Your task to perform on an android device: check data usage Image 0: 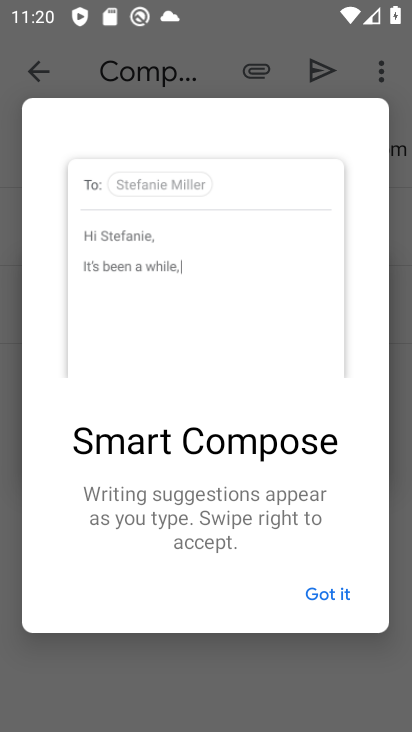
Step 0: press home button
Your task to perform on an android device: check data usage Image 1: 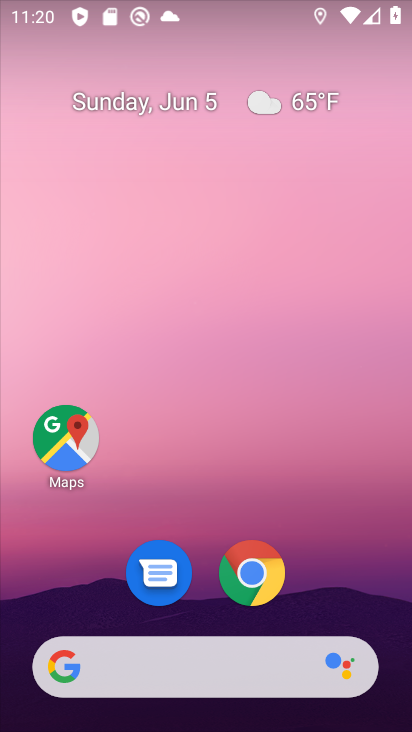
Step 1: drag from (203, 614) to (166, 46)
Your task to perform on an android device: check data usage Image 2: 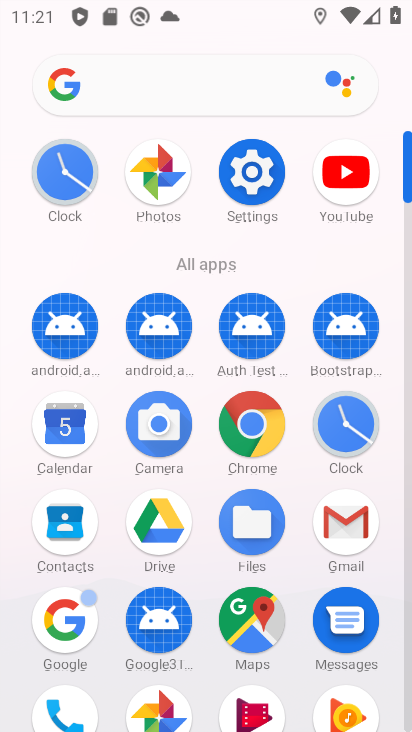
Step 2: click (245, 168)
Your task to perform on an android device: check data usage Image 3: 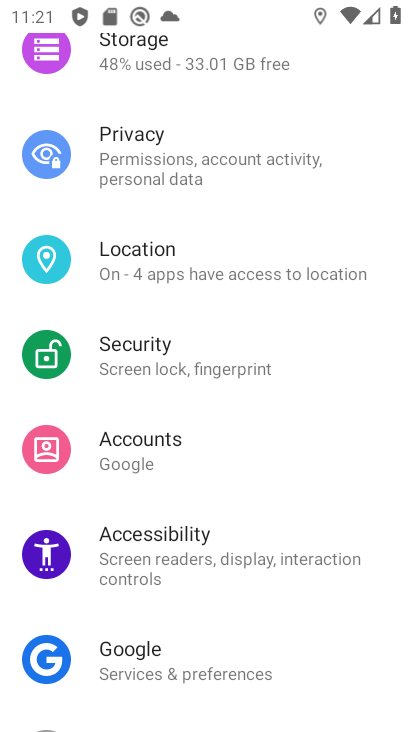
Step 3: drag from (202, 107) to (218, 657)
Your task to perform on an android device: check data usage Image 4: 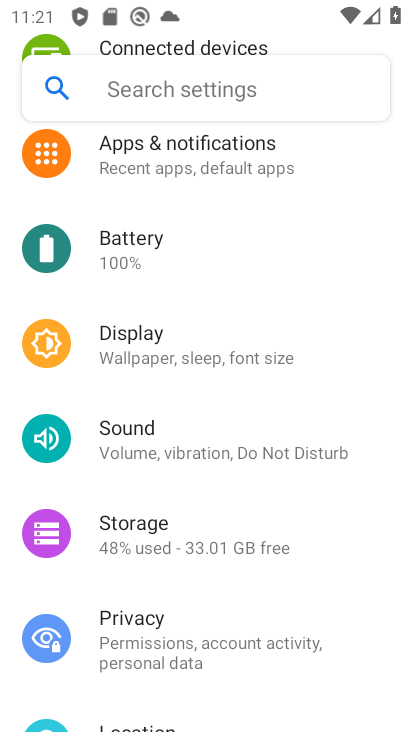
Step 4: drag from (186, 161) to (194, 686)
Your task to perform on an android device: check data usage Image 5: 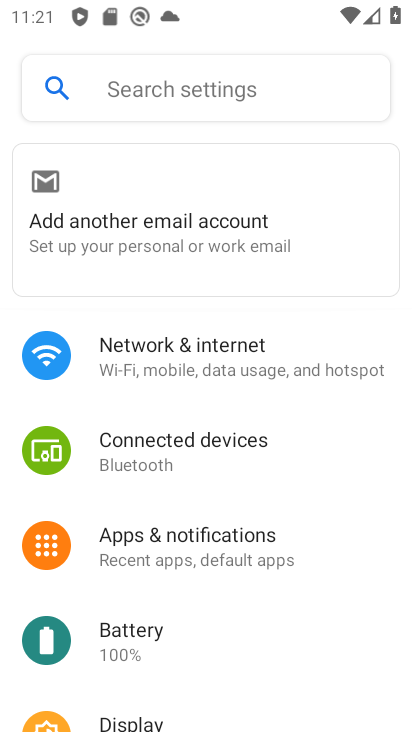
Step 5: click (212, 360)
Your task to perform on an android device: check data usage Image 6: 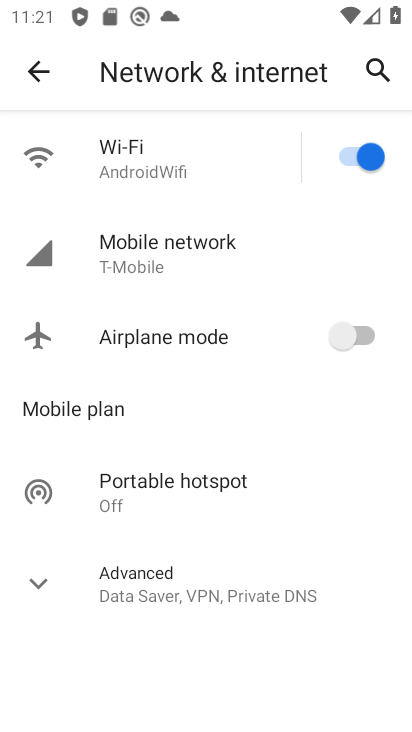
Step 6: click (59, 585)
Your task to perform on an android device: check data usage Image 7: 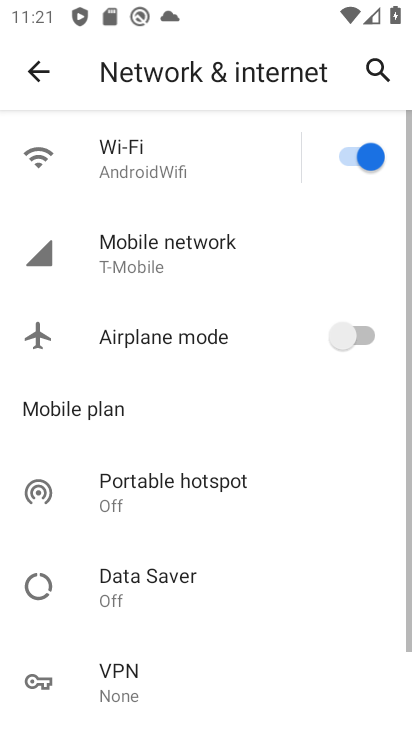
Step 7: click (217, 246)
Your task to perform on an android device: check data usage Image 8: 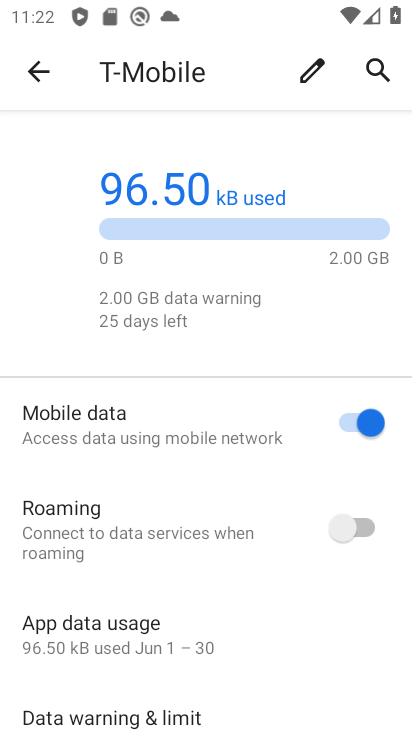
Step 8: click (173, 649)
Your task to perform on an android device: check data usage Image 9: 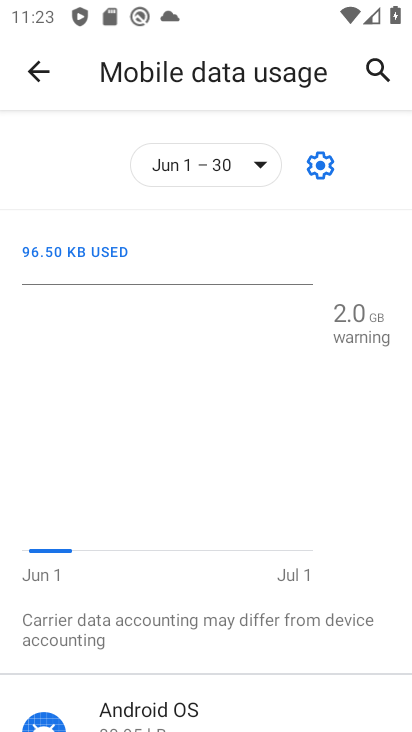
Step 9: task complete